Your task to perform on an android device: delete a single message in the gmail app Image 0: 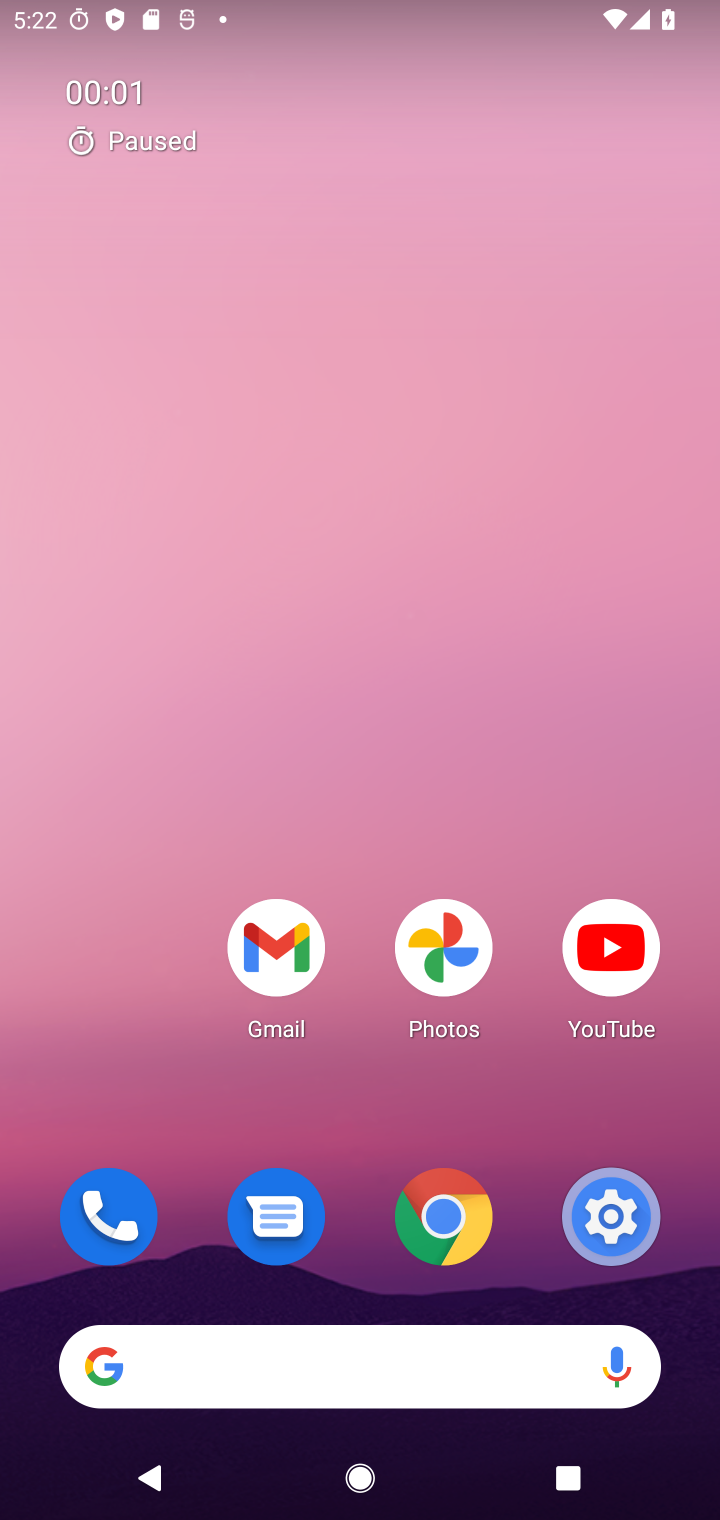
Step 0: drag from (540, 1133) to (595, 204)
Your task to perform on an android device: delete a single message in the gmail app Image 1: 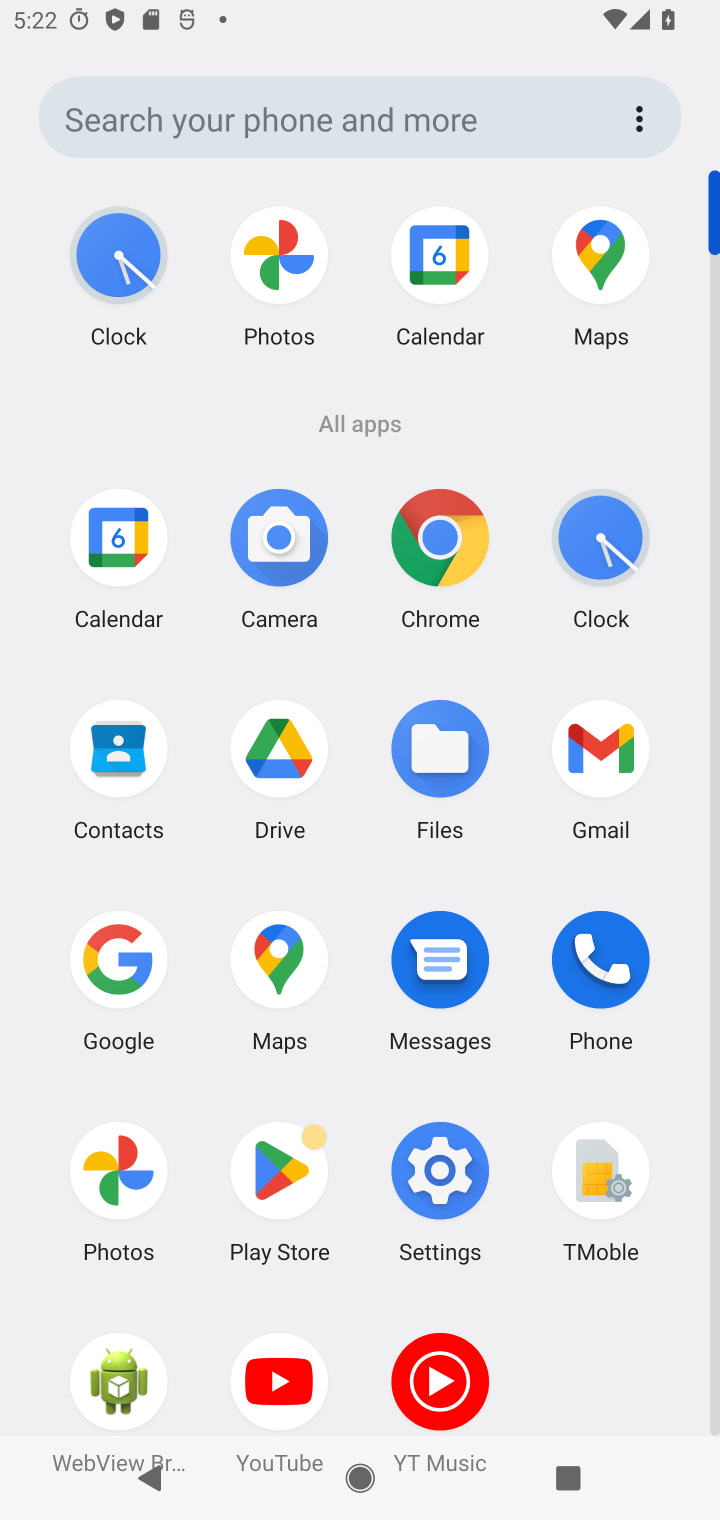
Step 1: click (614, 746)
Your task to perform on an android device: delete a single message in the gmail app Image 2: 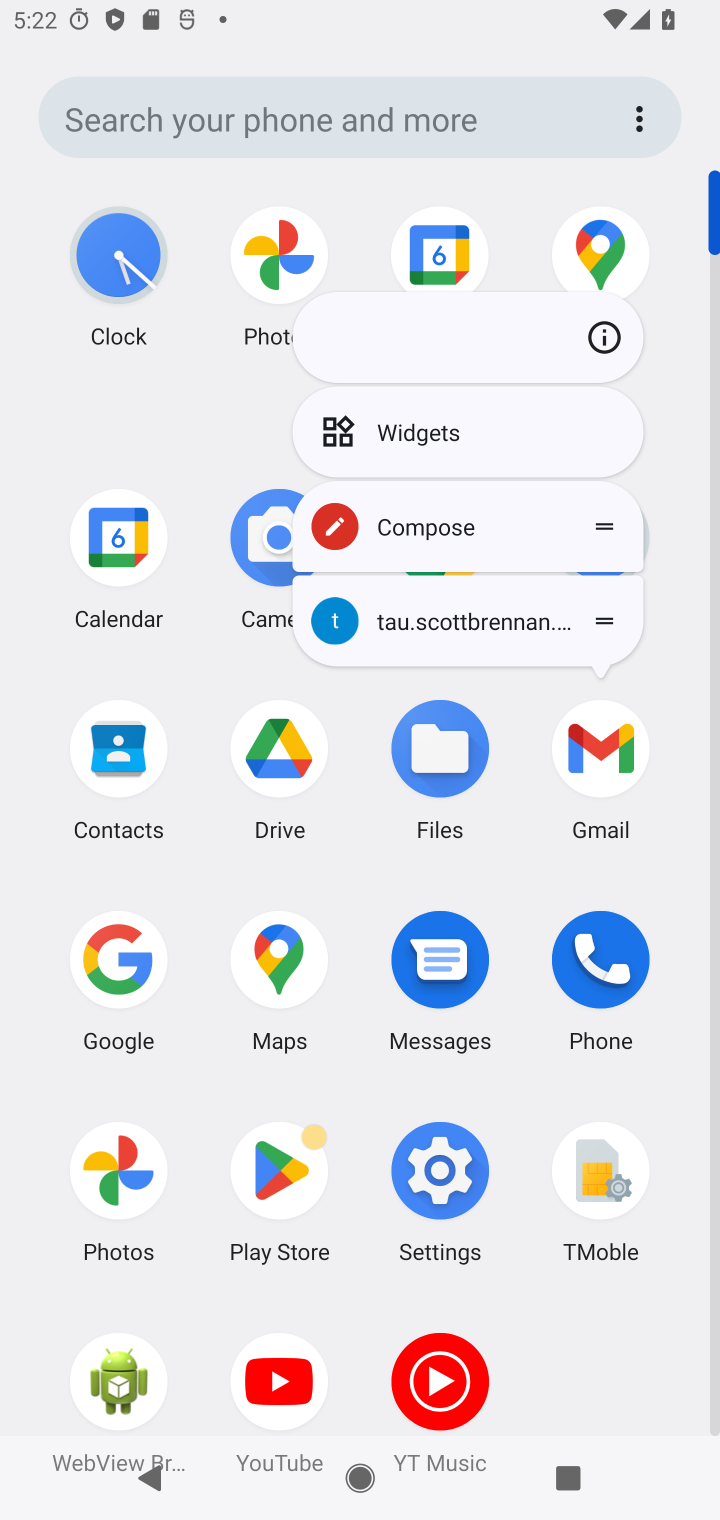
Step 2: click (615, 756)
Your task to perform on an android device: delete a single message in the gmail app Image 3: 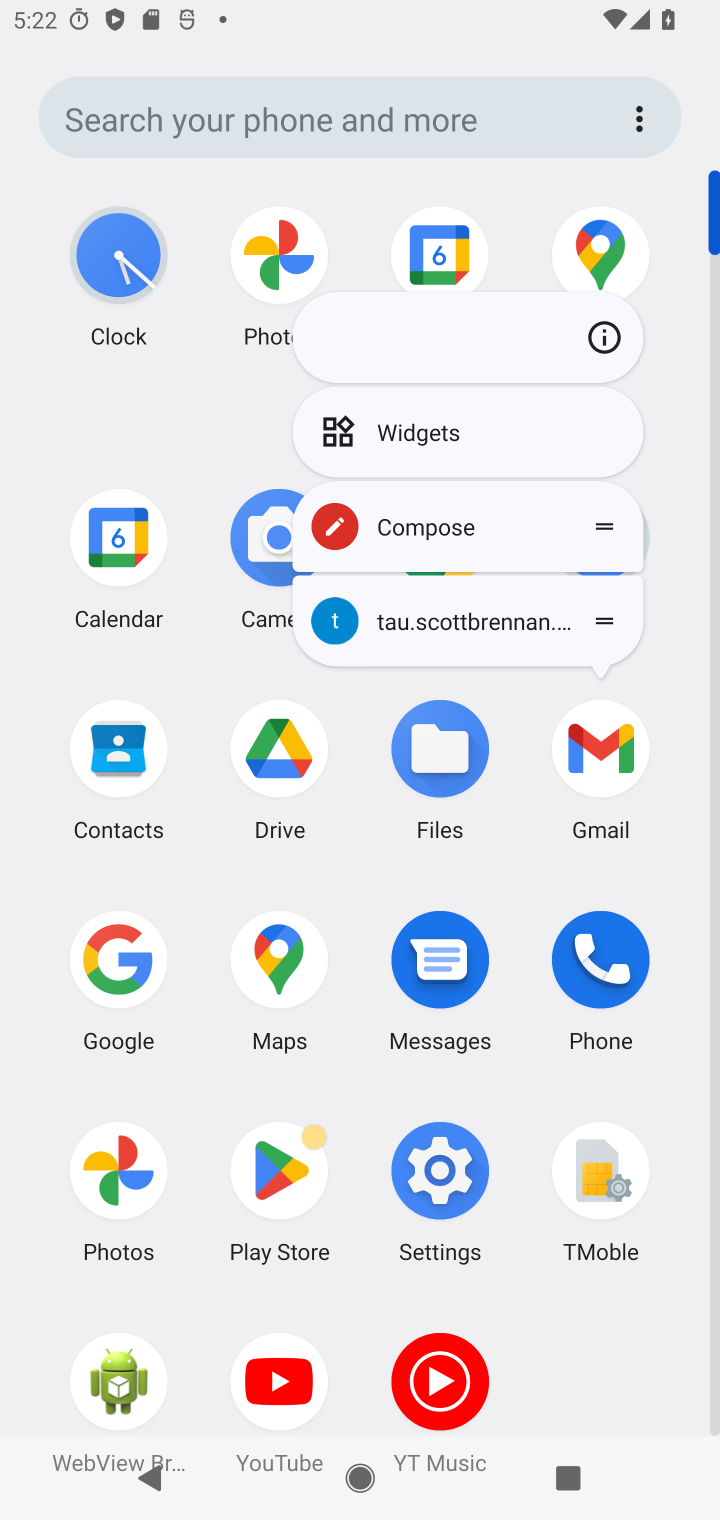
Step 3: click (609, 756)
Your task to perform on an android device: delete a single message in the gmail app Image 4: 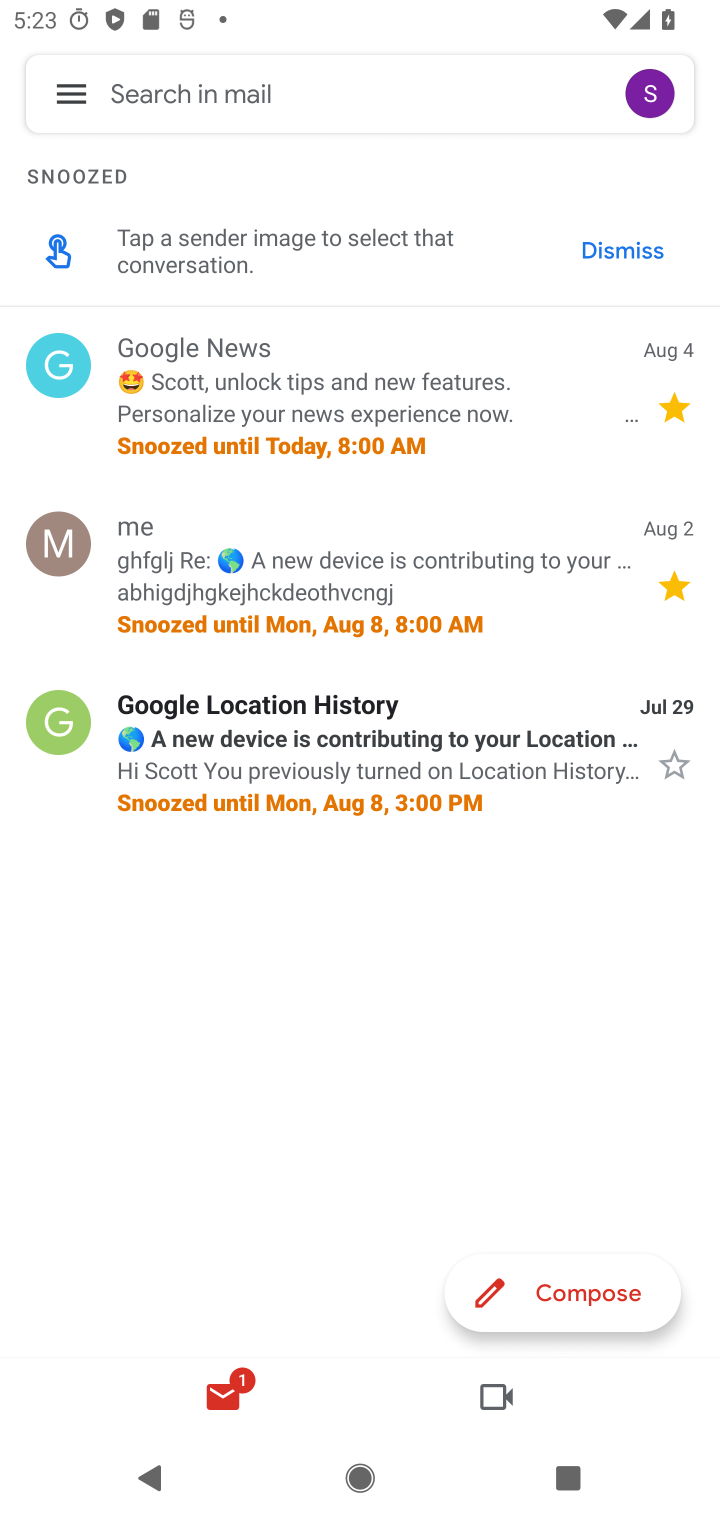
Step 4: click (236, 381)
Your task to perform on an android device: delete a single message in the gmail app Image 5: 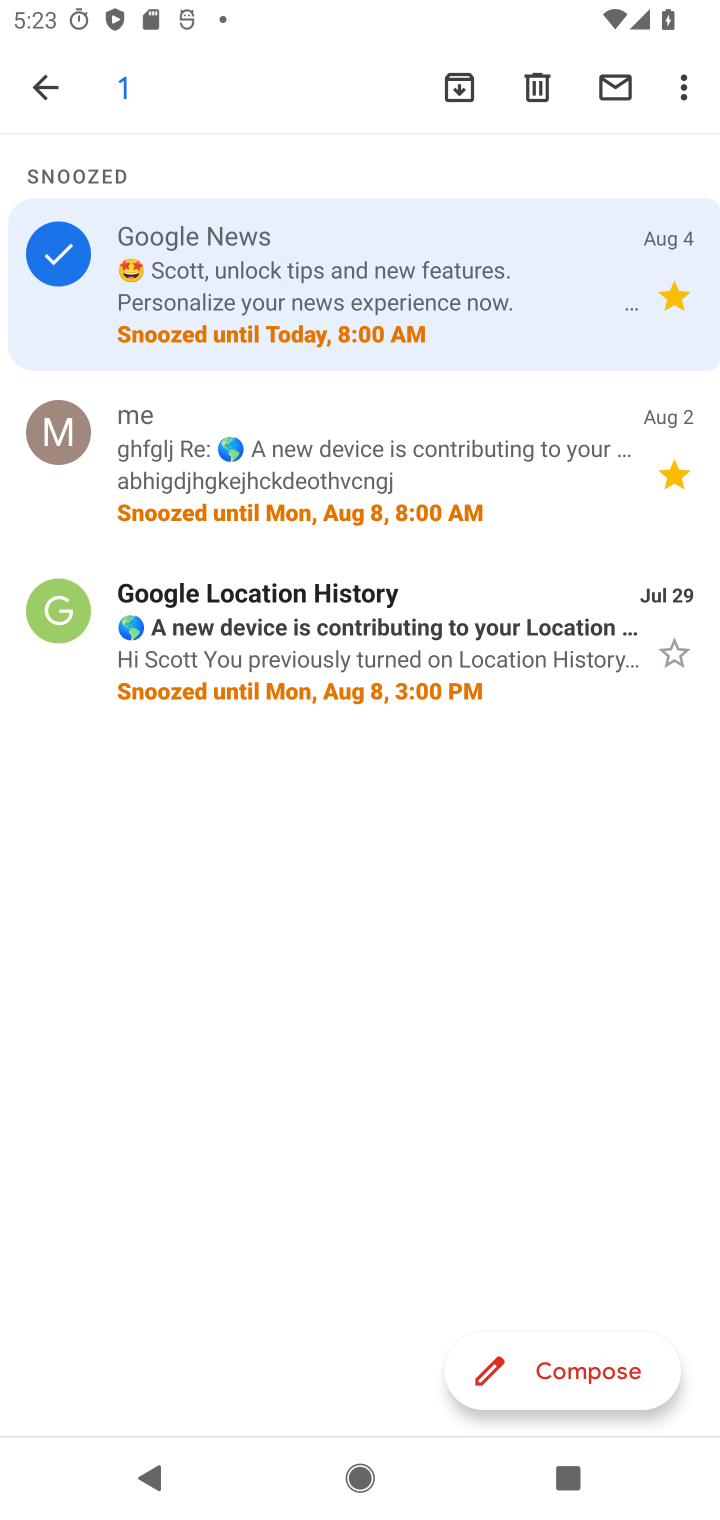
Step 5: click (533, 69)
Your task to perform on an android device: delete a single message in the gmail app Image 6: 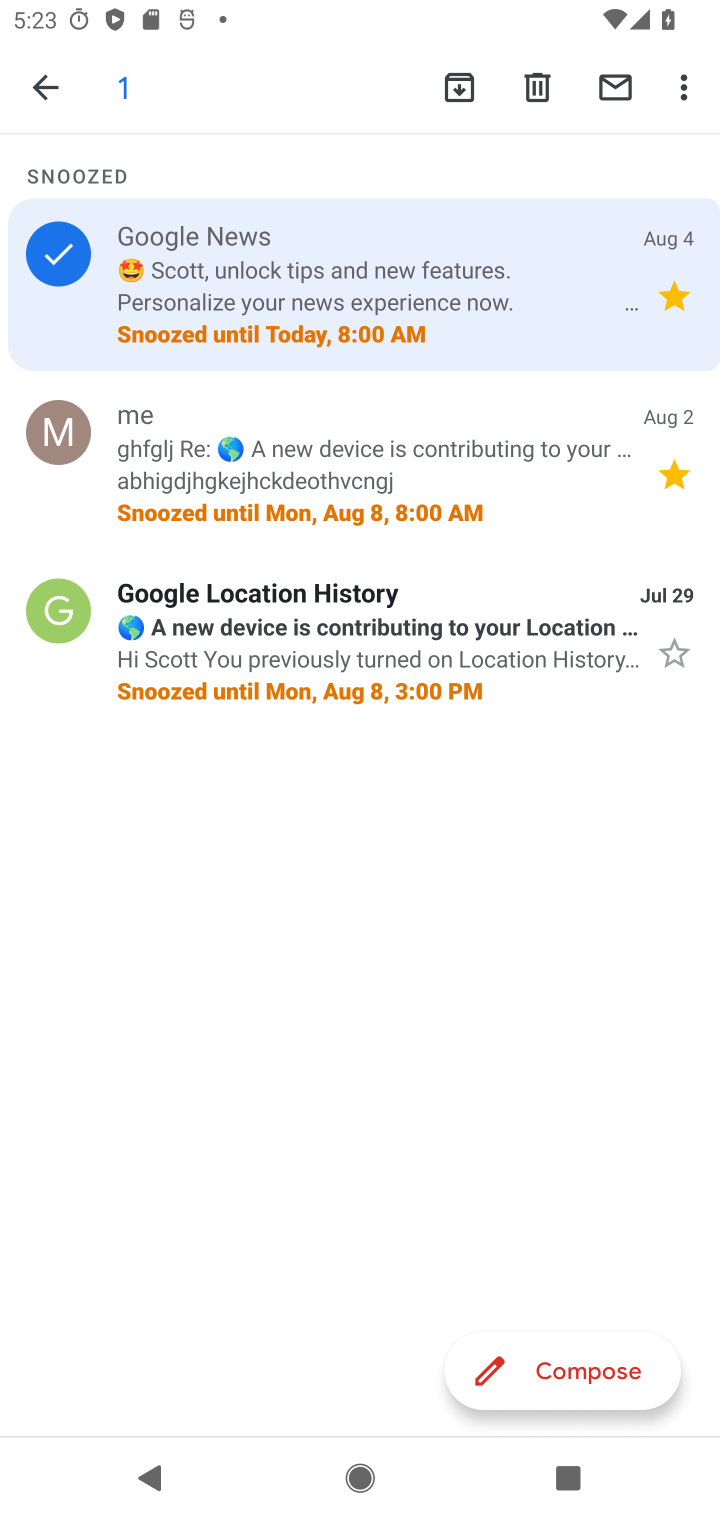
Step 6: click (542, 80)
Your task to perform on an android device: delete a single message in the gmail app Image 7: 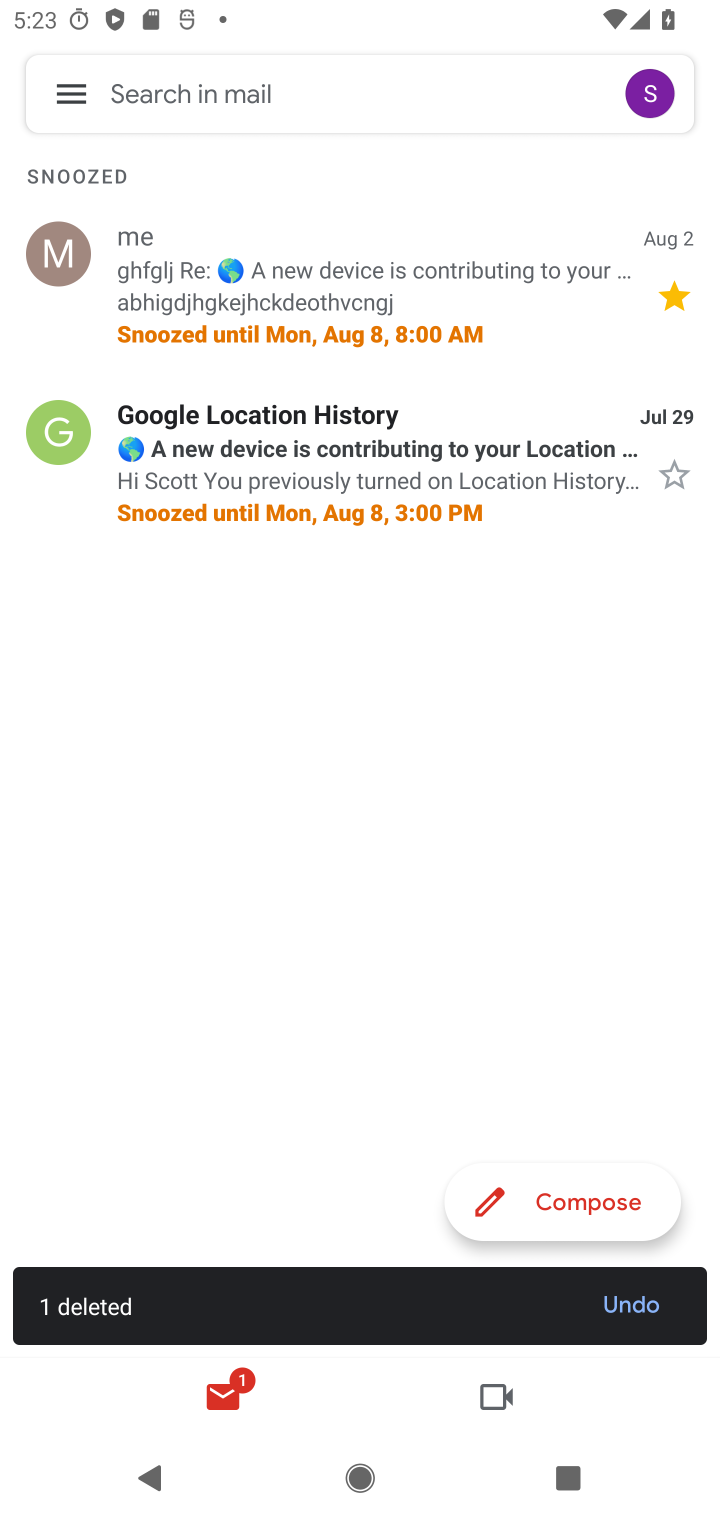
Step 7: task complete